Your task to perform on an android device: Do I have any events this weekend? Image 0: 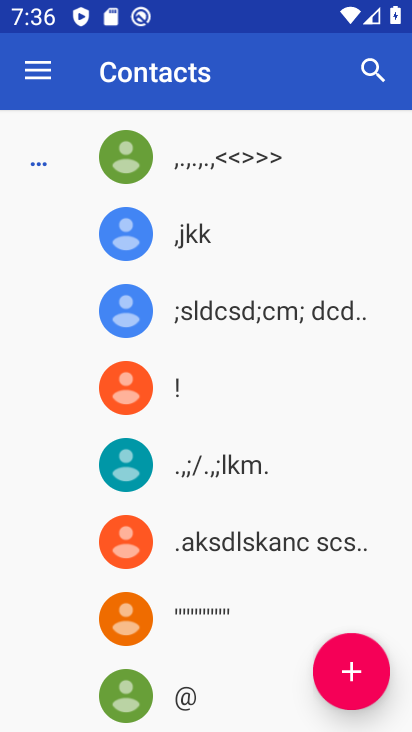
Step 0: press home button
Your task to perform on an android device: Do I have any events this weekend? Image 1: 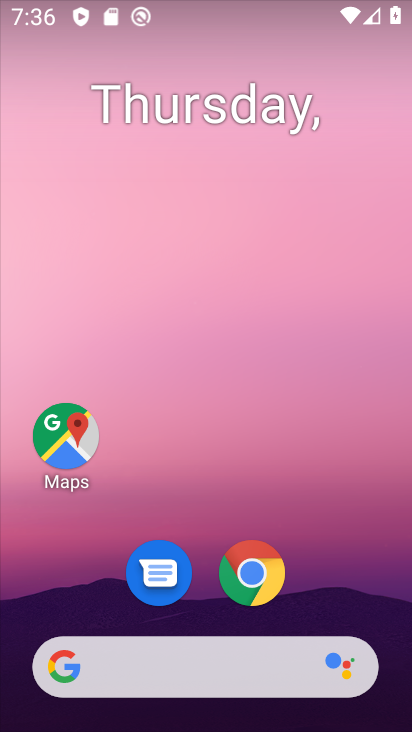
Step 1: drag from (367, 591) to (282, 134)
Your task to perform on an android device: Do I have any events this weekend? Image 2: 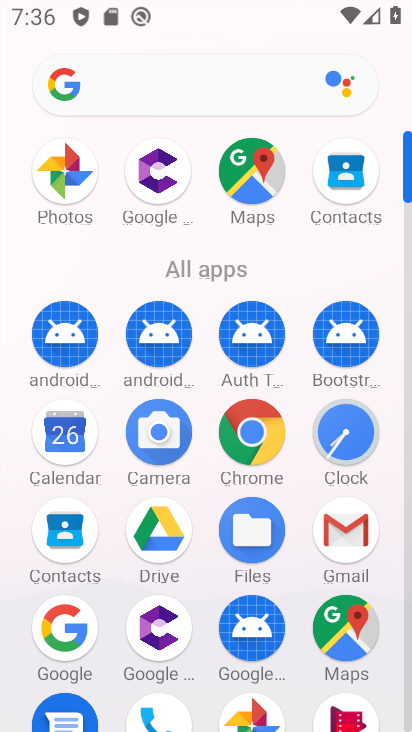
Step 2: click (89, 454)
Your task to perform on an android device: Do I have any events this weekend? Image 3: 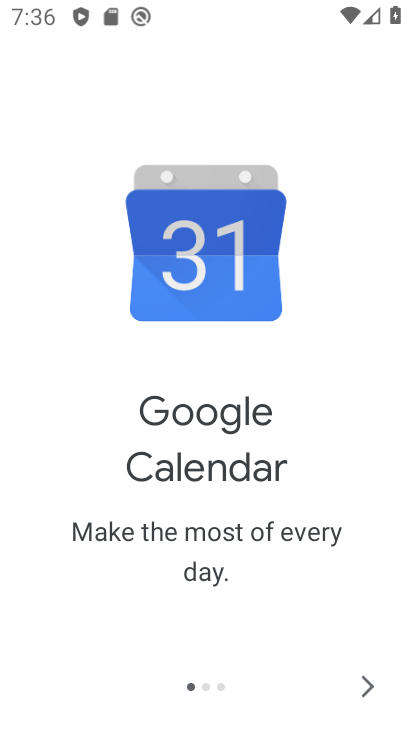
Step 3: click (367, 691)
Your task to perform on an android device: Do I have any events this weekend? Image 4: 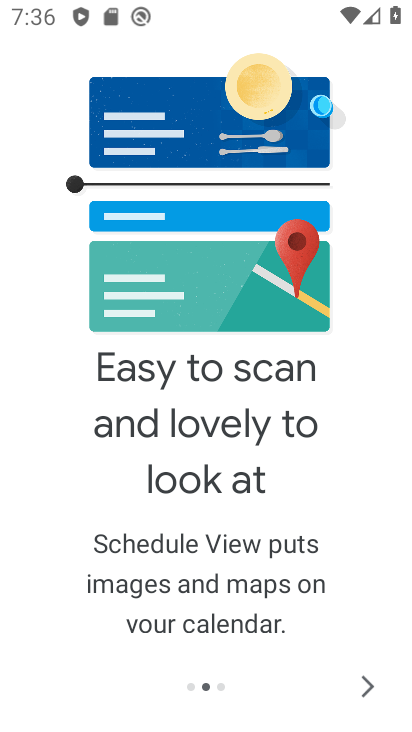
Step 4: click (367, 691)
Your task to perform on an android device: Do I have any events this weekend? Image 5: 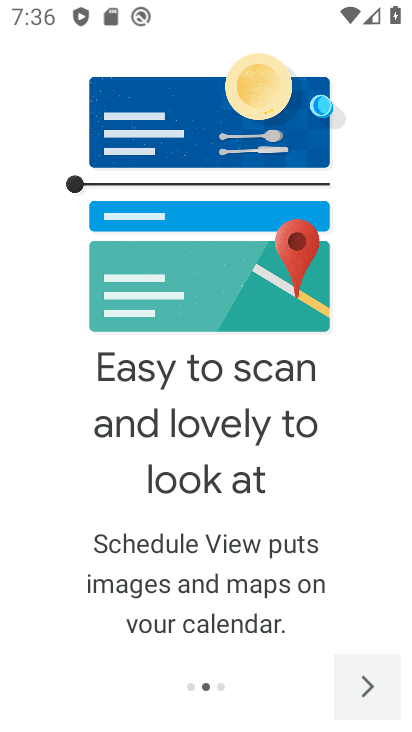
Step 5: click (367, 691)
Your task to perform on an android device: Do I have any events this weekend? Image 6: 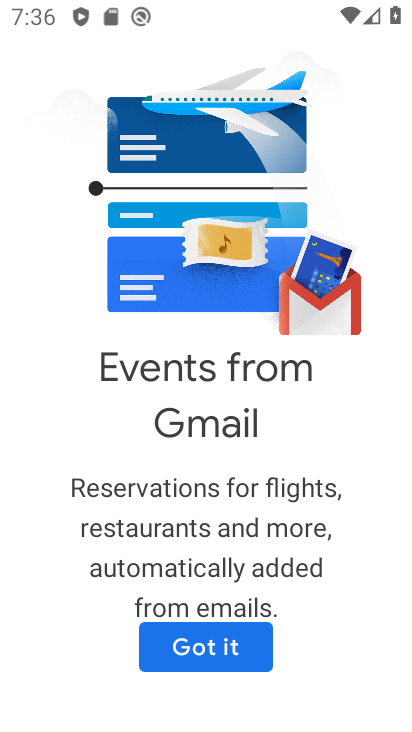
Step 6: click (267, 664)
Your task to perform on an android device: Do I have any events this weekend? Image 7: 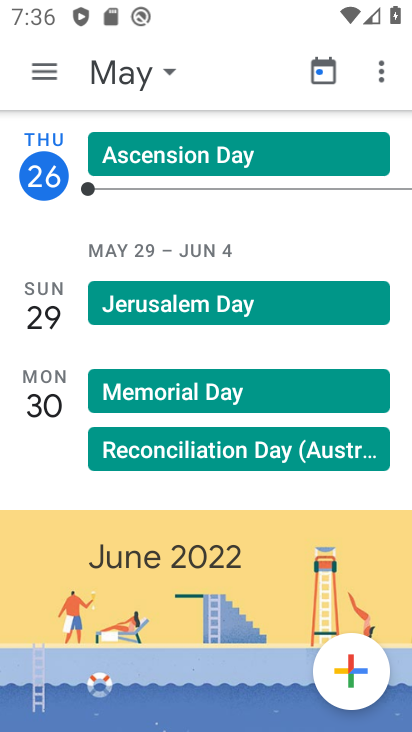
Step 7: click (56, 72)
Your task to perform on an android device: Do I have any events this weekend? Image 8: 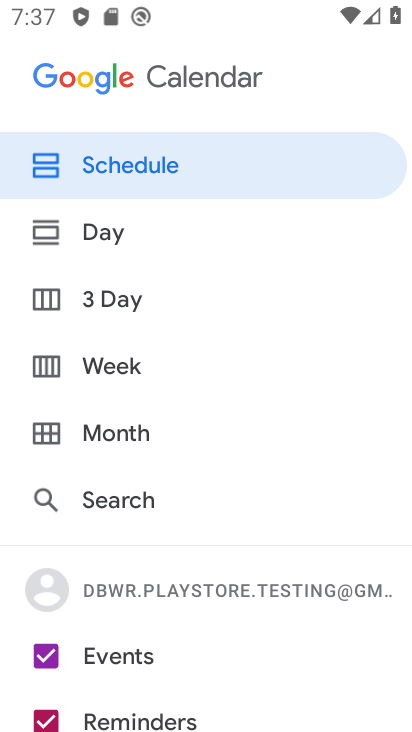
Step 8: click (121, 324)
Your task to perform on an android device: Do I have any events this weekend? Image 9: 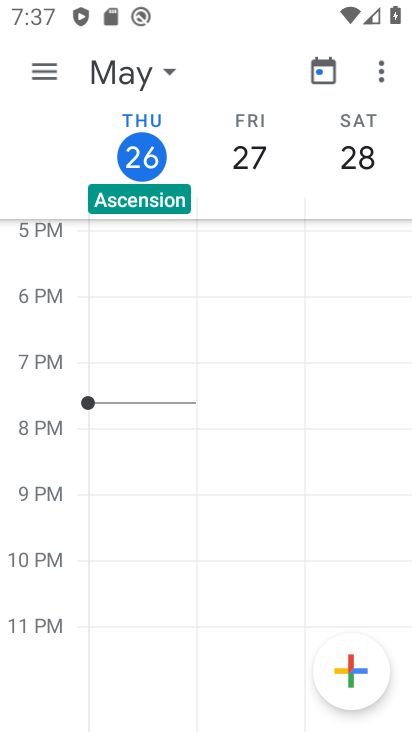
Step 9: task complete